Your task to perform on an android device: turn smart compose on in the gmail app Image 0: 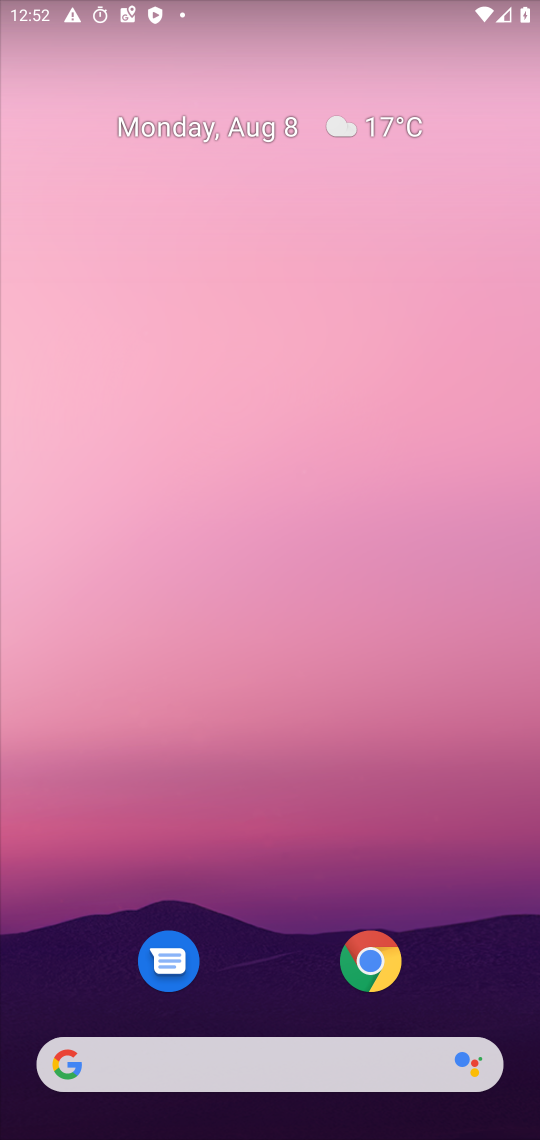
Step 0: drag from (314, 1060) to (255, 0)
Your task to perform on an android device: turn smart compose on in the gmail app Image 1: 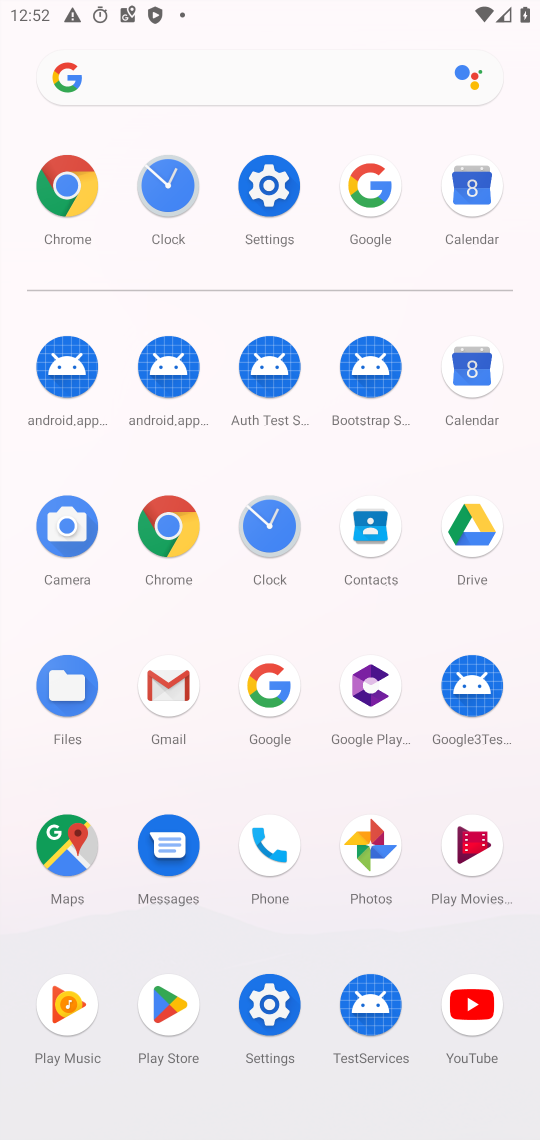
Step 1: click (163, 684)
Your task to perform on an android device: turn smart compose on in the gmail app Image 2: 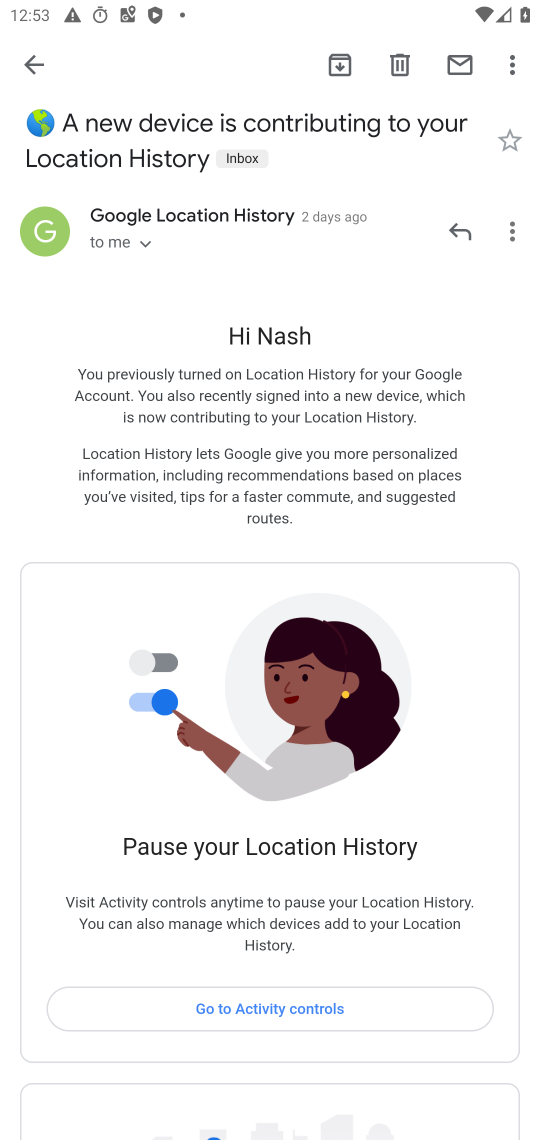
Step 2: press back button
Your task to perform on an android device: turn smart compose on in the gmail app Image 3: 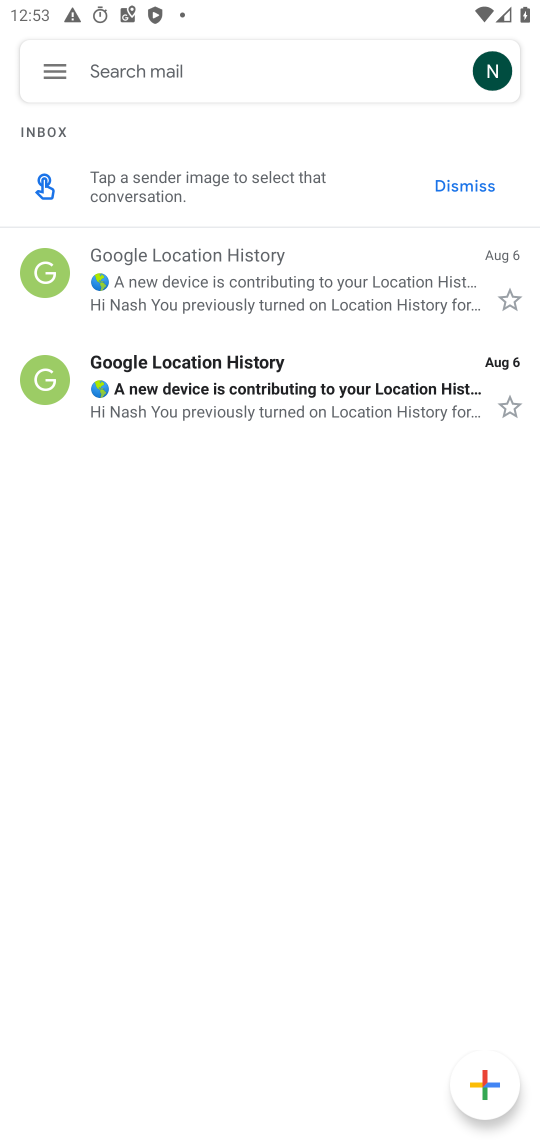
Step 3: click (58, 67)
Your task to perform on an android device: turn smart compose on in the gmail app Image 4: 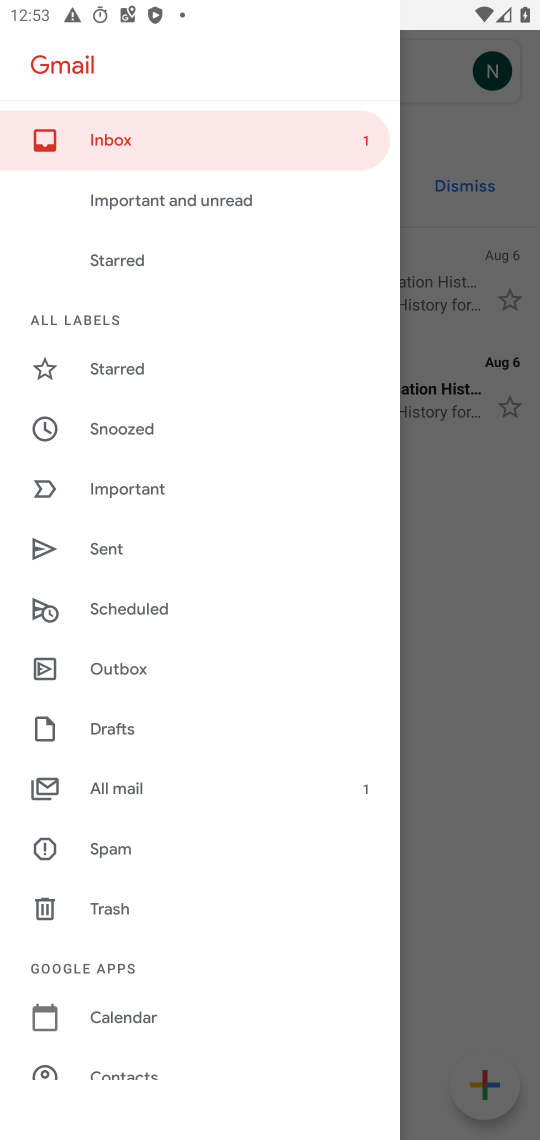
Step 4: drag from (364, 1066) to (303, 488)
Your task to perform on an android device: turn smart compose on in the gmail app Image 5: 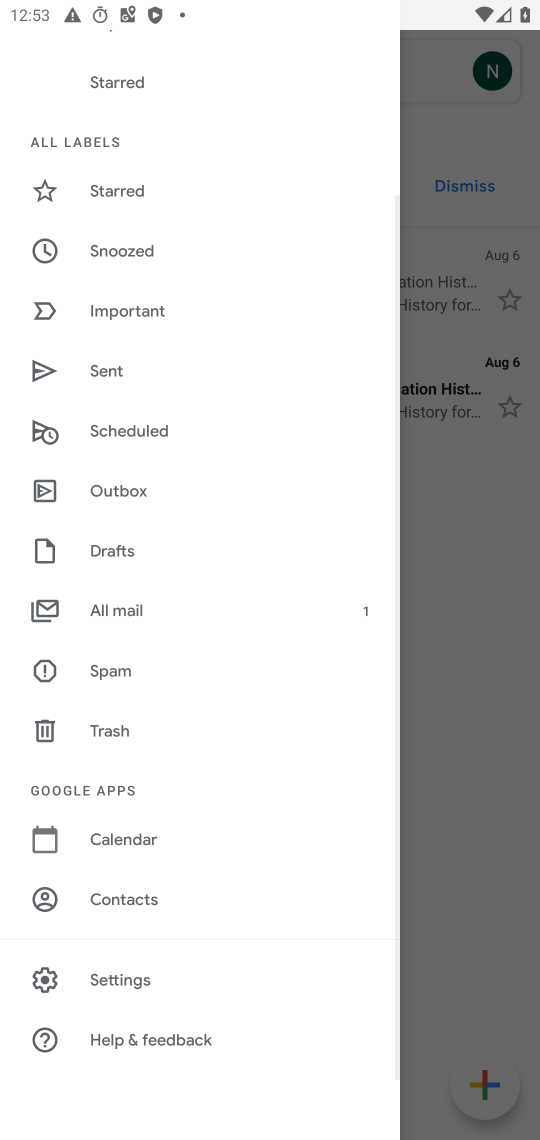
Step 5: click (150, 969)
Your task to perform on an android device: turn smart compose on in the gmail app Image 6: 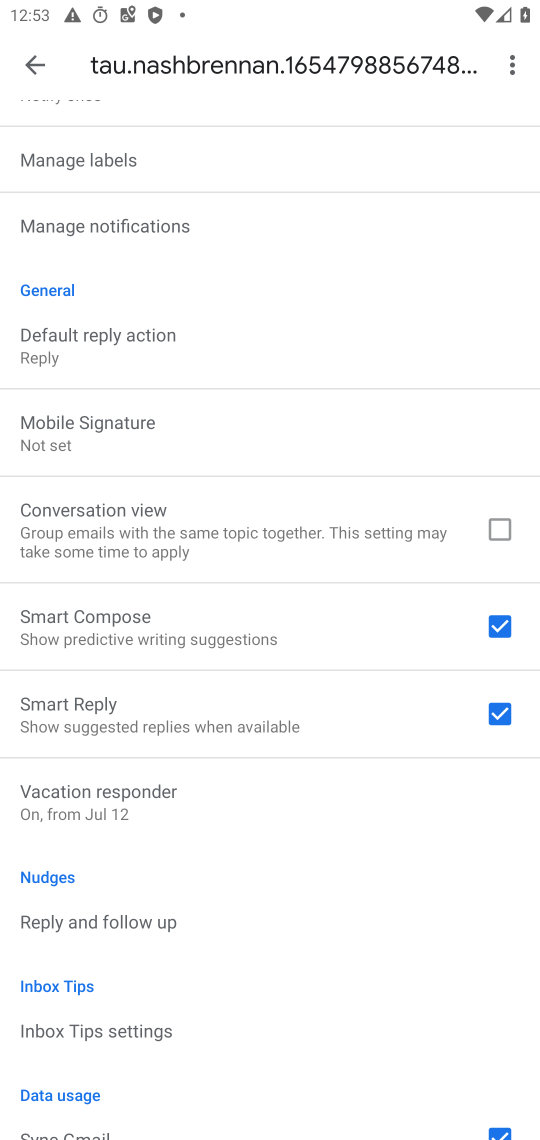
Step 6: task complete